Your task to perform on an android device: toggle sleep mode Image 0: 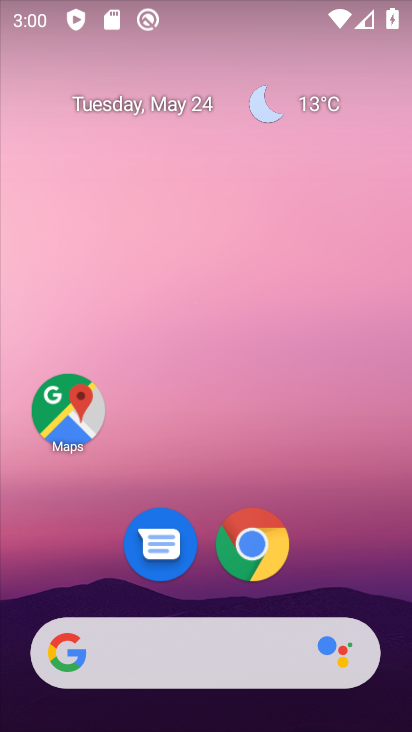
Step 0: drag from (340, 577) to (181, 41)
Your task to perform on an android device: toggle sleep mode Image 1: 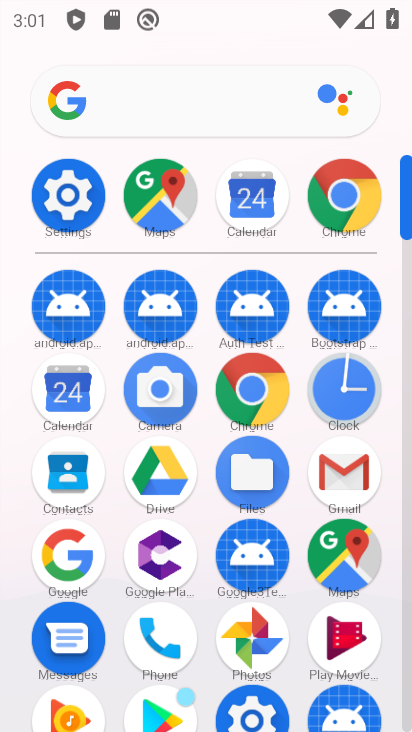
Step 1: click (61, 192)
Your task to perform on an android device: toggle sleep mode Image 2: 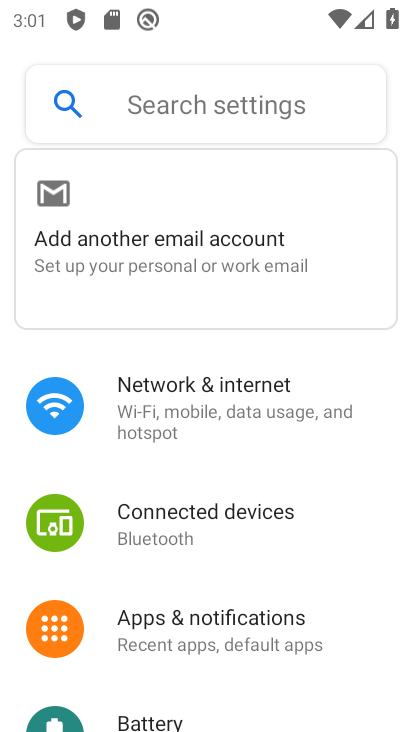
Step 2: drag from (229, 634) to (200, 277)
Your task to perform on an android device: toggle sleep mode Image 3: 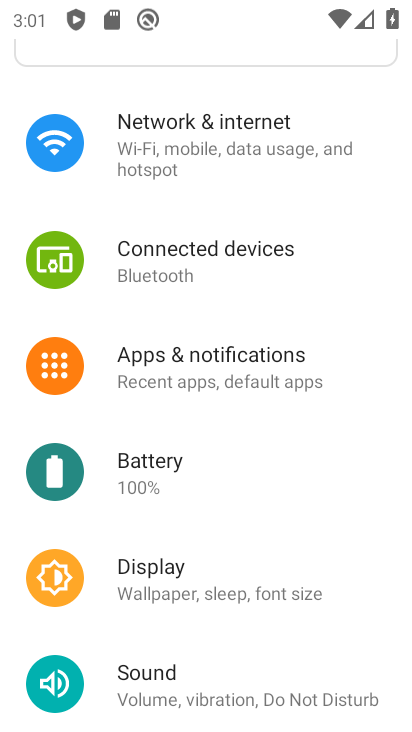
Step 3: click (167, 595)
Your task to perform on an android device: toggle sleep mode Image 4: 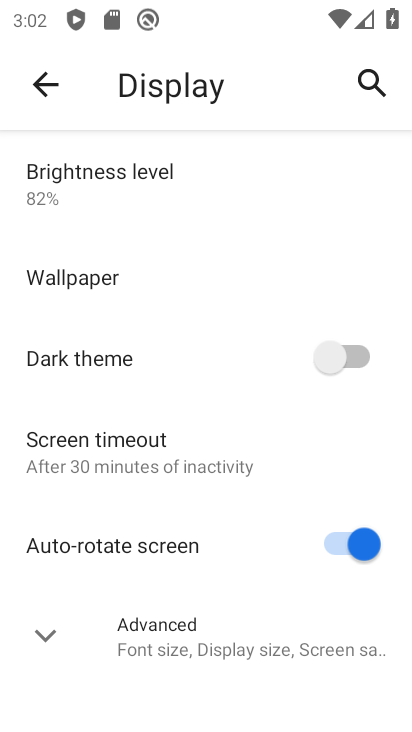
Step 4: click (107, 445)
Your task to perform on an android device: toggle sleep mode Image 5: 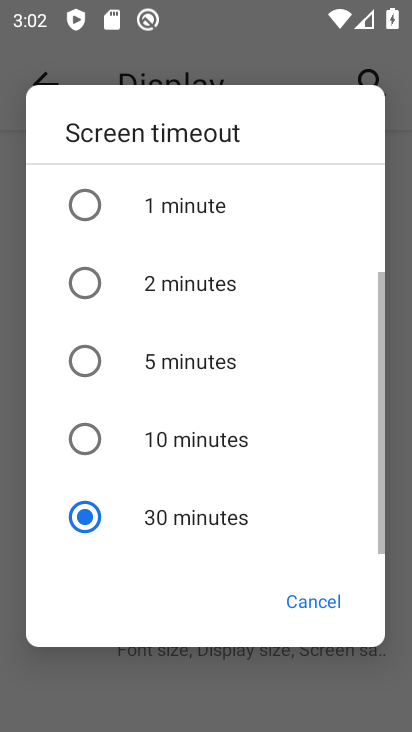
Step 5: click (92, 370)
Your task to perform on an android device: toggle sleep mode Image 6: 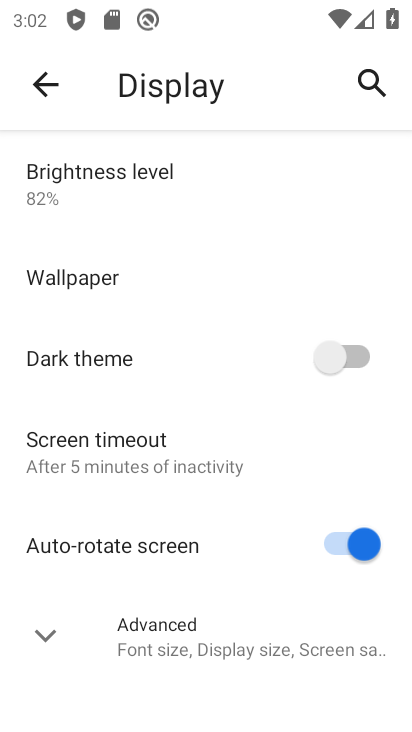
Step 6: task complete